Your task to perform on an android device: Go to eBay Image 0: 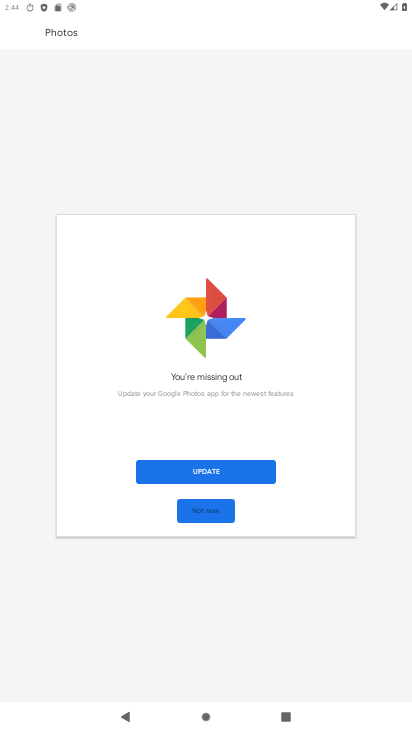
Step 0: press home button
Your task to perform on an android device: Go to eBay Image 1: 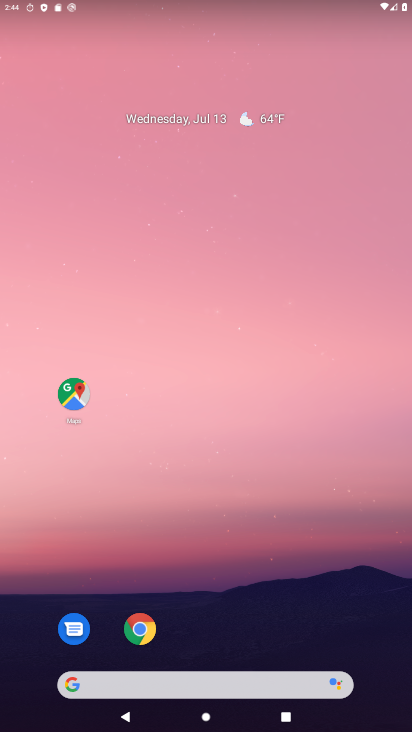
Step 1: drag from (280, 682) to (271, 3)
Your task to perform on an android device: Go to eBay Image 2: 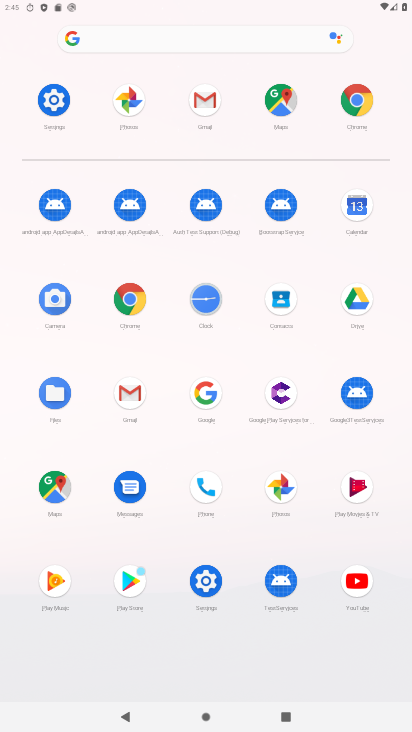
Step 2: click (135, 295)
Your task to perform on an android device: Go to eBay Image 3: 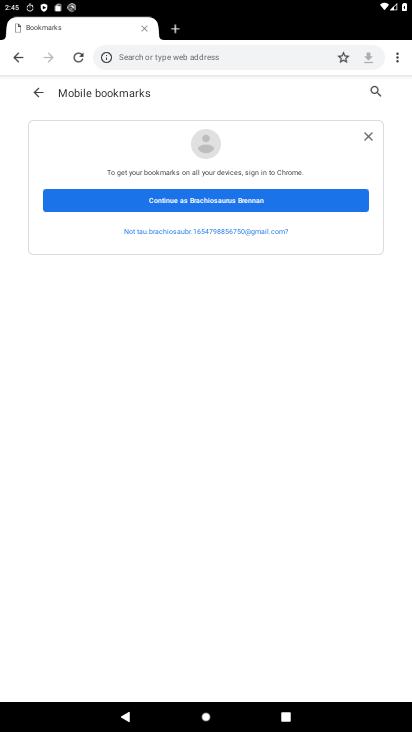
Step 3: drag from (392, 55) to (263, 59)
Your task to perform on an android device: Go to eBay Image 4: 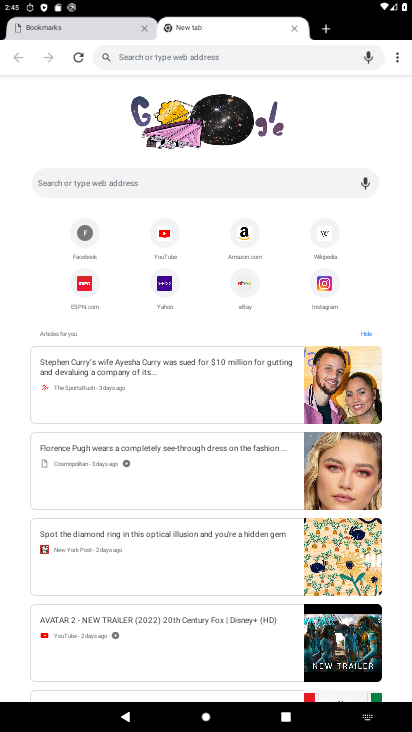
Step 4: click (242, 284)
Your task to perform on an android device: Go to eBay Image 5: 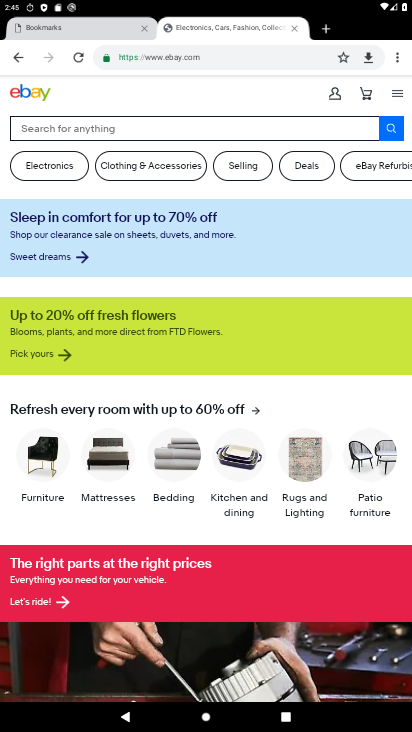
Step 5: task complete